Your task to perform on an android device: Go to eBay Image 0: 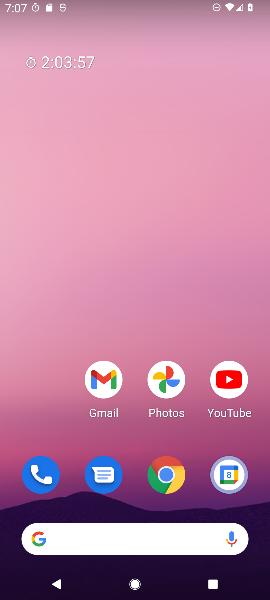
Step 0: press home button
Your task to perform on an android device: Go to eBay Image 1: 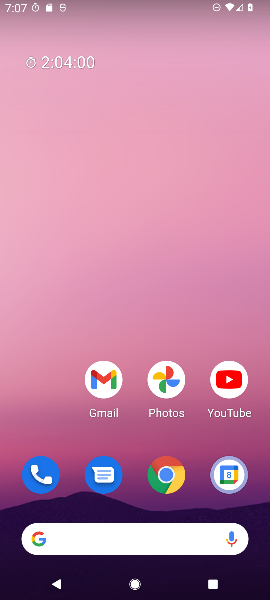
Step 1: drag from (58, 436) to (53, 158)
Your task to perform on an android device: Go to eBay Image 2: 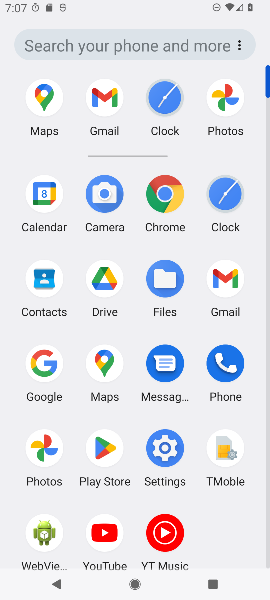
Step 2: click (163, 201)
Your task to perform on an android device: Go to eBay Image 3: 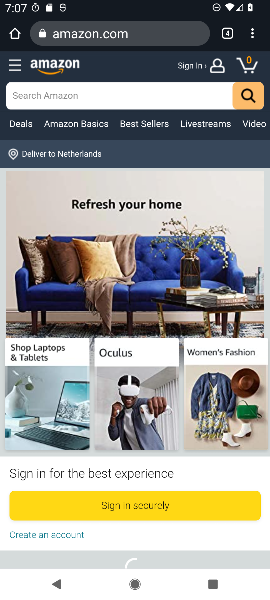
Step 3: click (145, 36)
Your task to perform on an android device: Go to eBay Image 4: 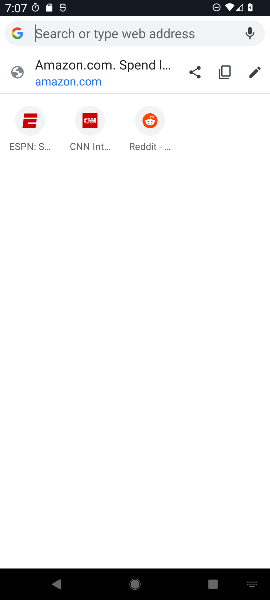
Step 4: type "ebay"
Your task to perform on an android device: Go to eBay Image 5: 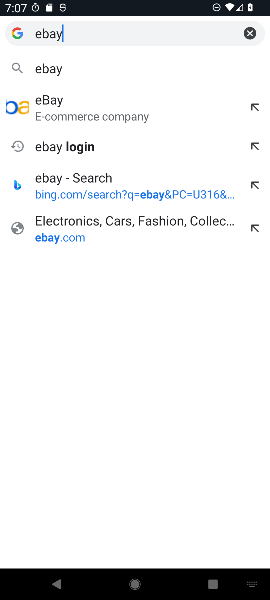
Step 5: click (51, 107)
Your task to perform on an android device: Go to eBay Image 6: 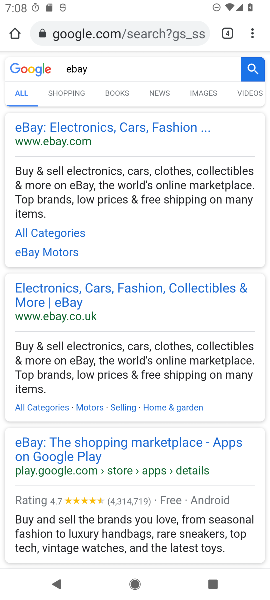
Step 6: task complete